Your task to perform on an android device: toggle notifications settings in the gmail app Image 0: 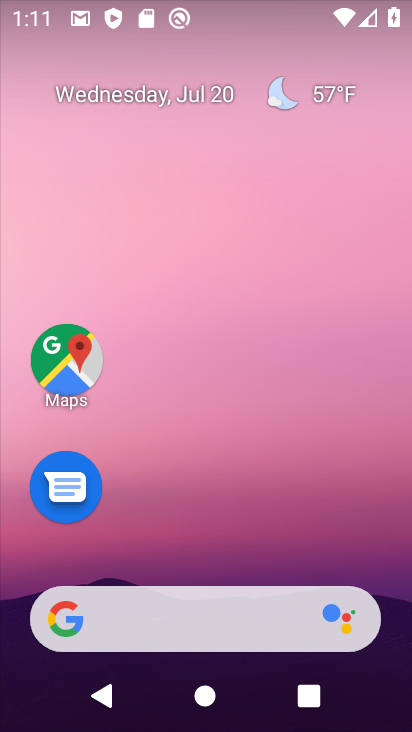
Step 0: drag from (166, 525) to (239, 57)
Your task to perform on an android device: toggle notifications settings in the gmail app Image 1: 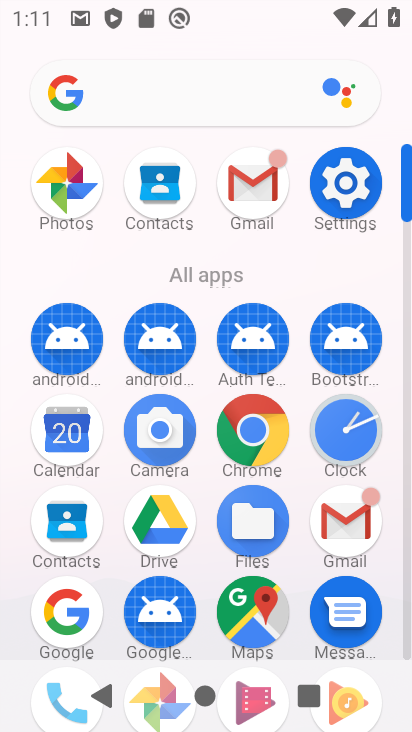
Step 1: click (241, 174)
Your task to perform on an android device: toggle notifications settings in the gmail app Image 2: 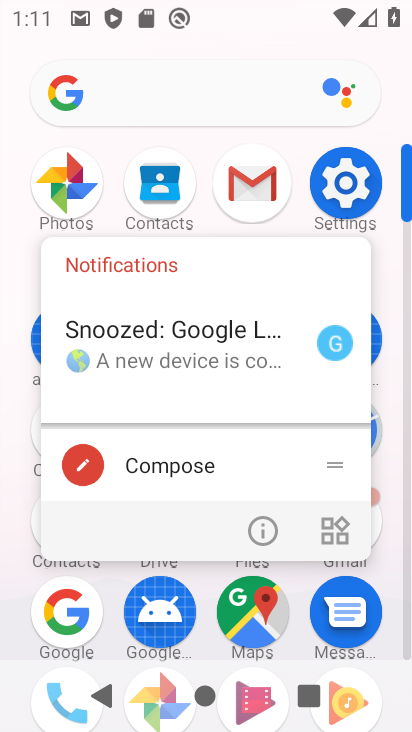
Step 2: click (259, 533)
Your task to perform on an android device: toggle notifications settings in the gmail app Image 3: 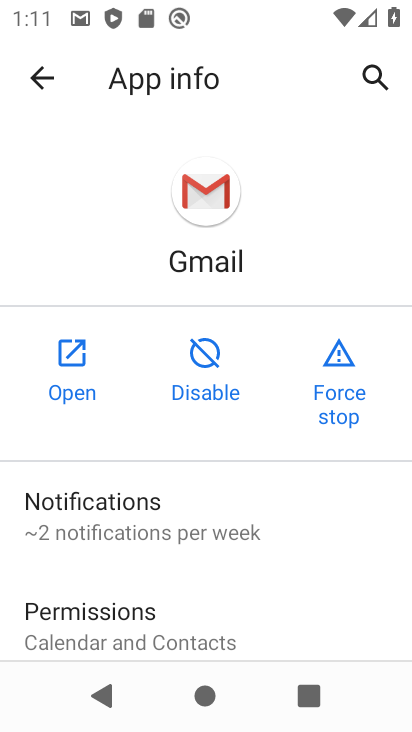
Step 3: click (129, 520)
Your task to perform on an android device: toggle notifications settings in the gmail app Image 4: 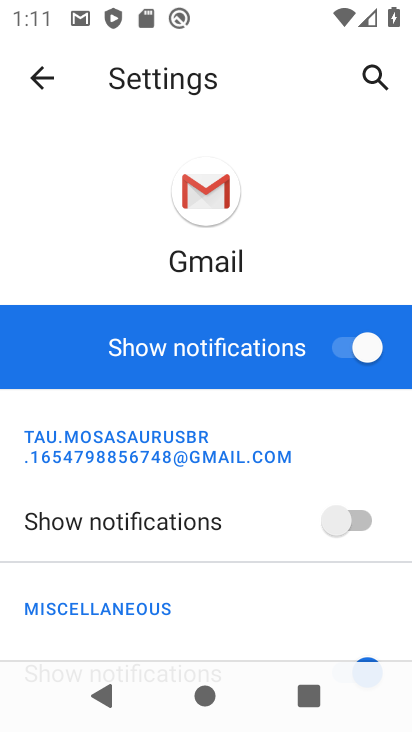
Step 4: click (345, 351)
Your task to perform on an android device: toggle notifications settings in the gmail app Image 5: 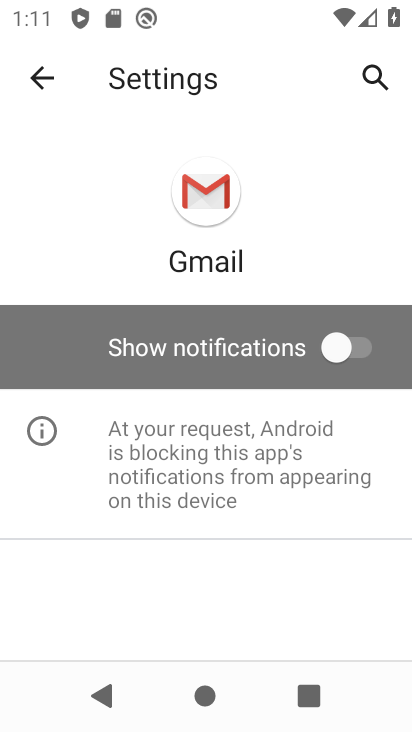
Step 5: task complete